Your task to perform on an android device: Go to settings Image 0: 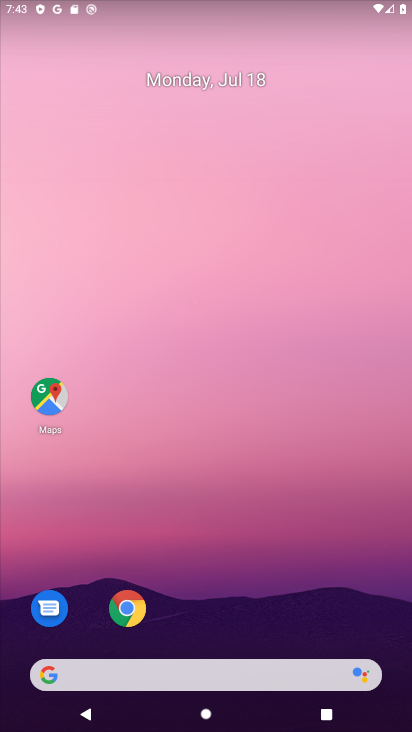
Step 0: drag from (217, 618) to (223, 100)
Your task to perform on an android device: Go to settings Image 1: 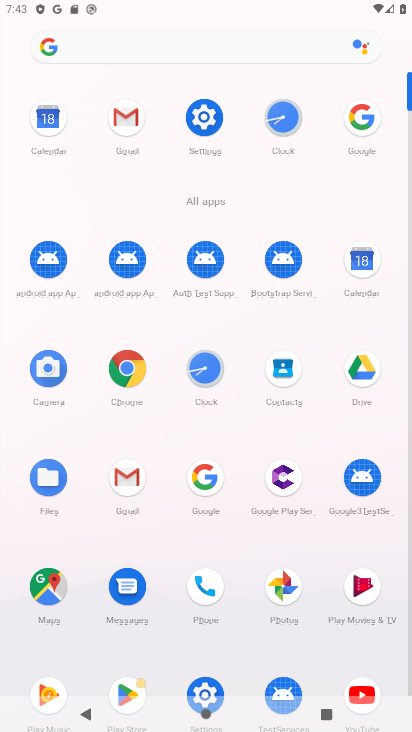
Step 1: click (204, 114)
Your task to perform on an android device: Go to settings Image 2: 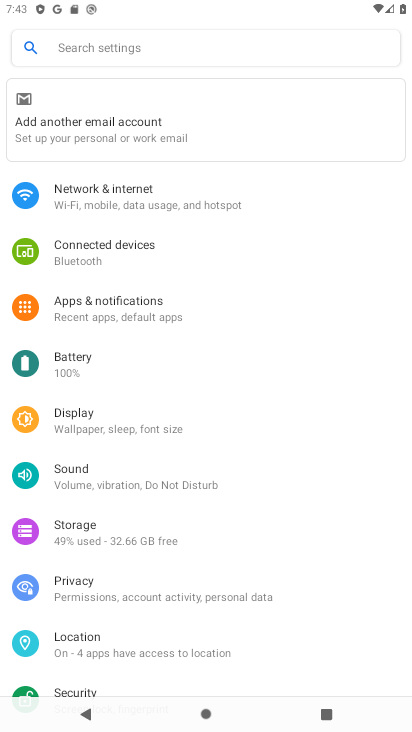
Step 2: task complete